Your task to perform on an android device: Open ESPN.com Image 0: 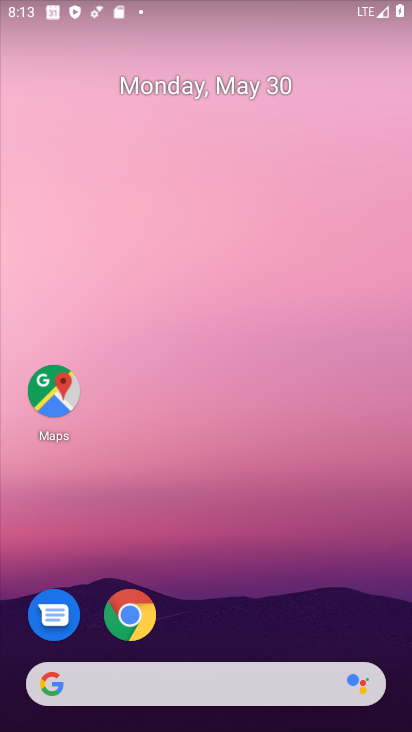
Step 0: click (125, 607)
Your task to perform on an android device: Open ESPN.com Image 1: 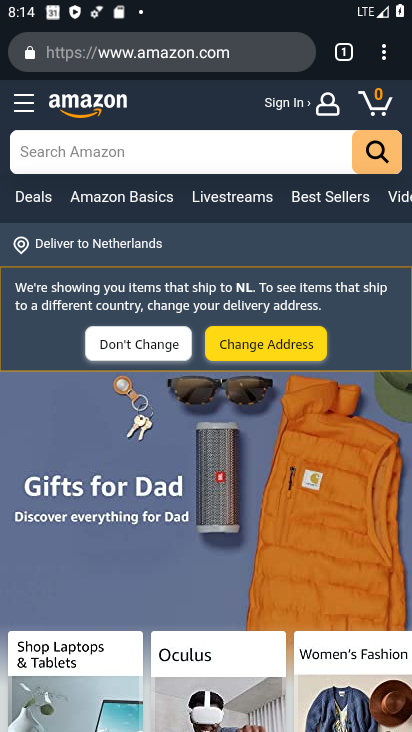
Step 1: click (339, 51)
Your task to perform on an android device: Open ESPN.com Image 2: 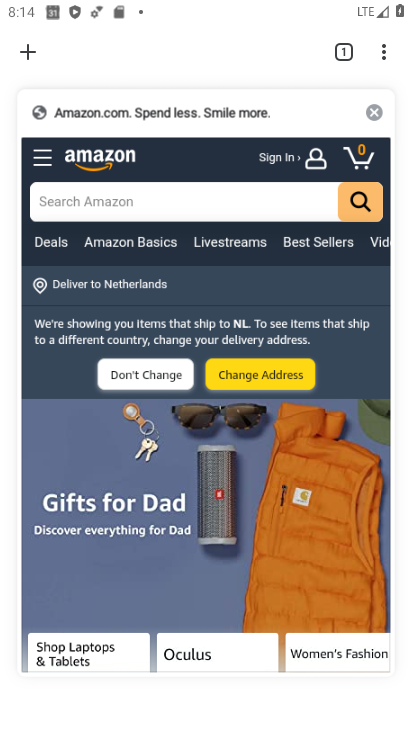
Step 2: click (369, 118)
Your task to perform on an android device: Open ESPN.com Image 3: 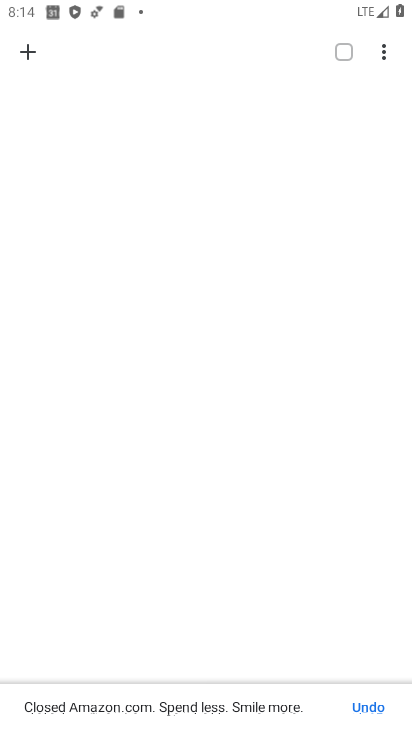
Step 3: click (25, 54)
Your task to perform on an android device: Open ESPN.com Image 4: 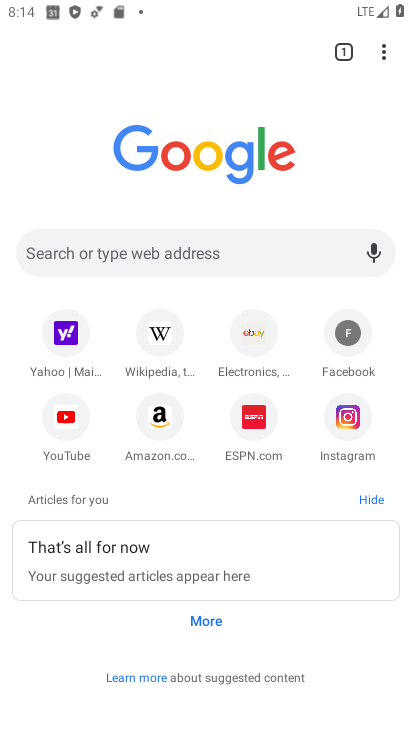
Step 4: click (247, 430)
Your task to perform on an android device: Open ESPN.com Image 5: 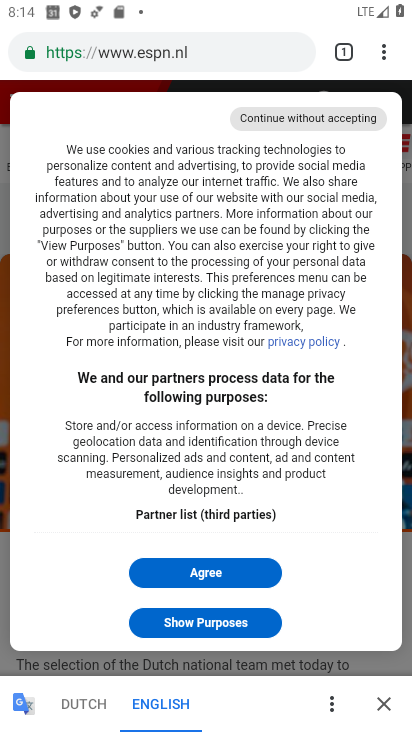
Step 5: task complete